Your task to perform on an android device: open app "HBO Max: Stream TV & Movies" (install if not already installed), go to login, and select forgot password Image 0: 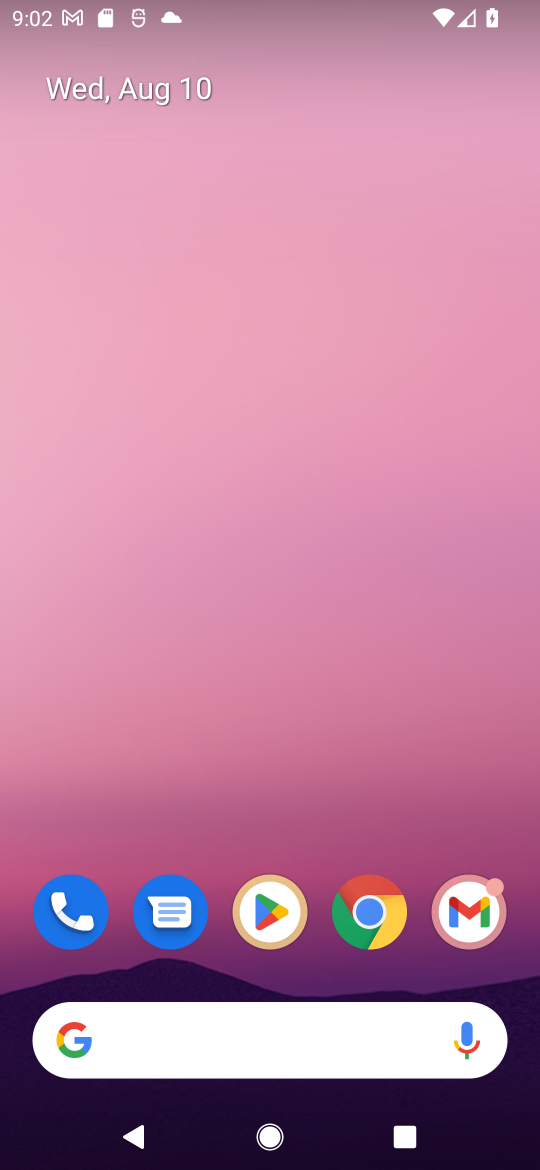
Step 0: drag from (511, 912) to (227, 53)
Your task to perform on an android device: open app "HBO Max: Stream TV & Movies" (install if not already installed), go to login, and select forgot password Image 1: 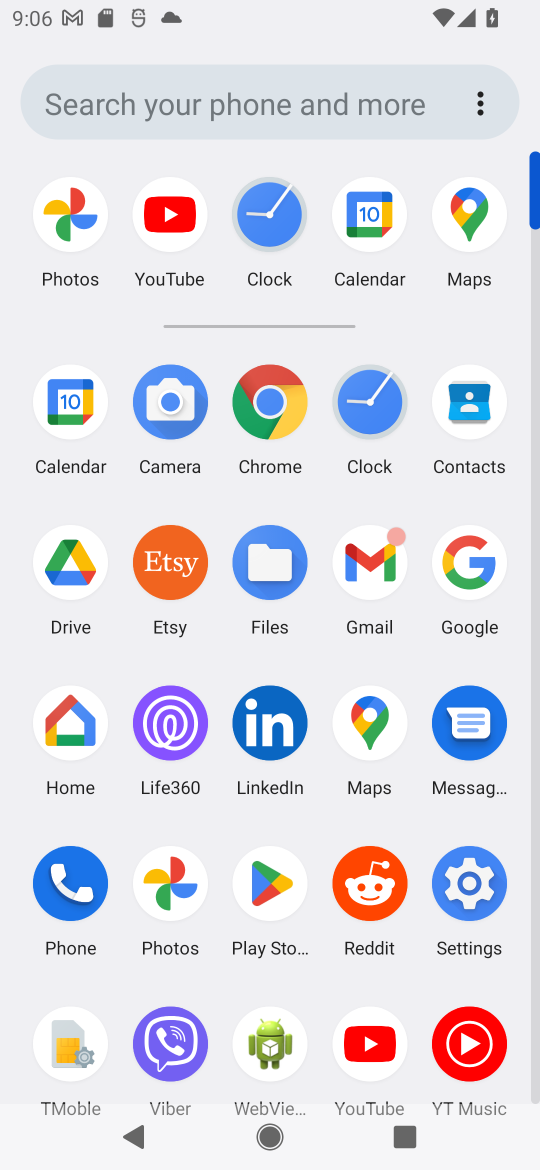
Step 1: click (260, 890)
Your task to perform on an android device: open app "HBO Max: Stream TV & Movies" (install if not already installed), go to login, and select forgot password Image 2: 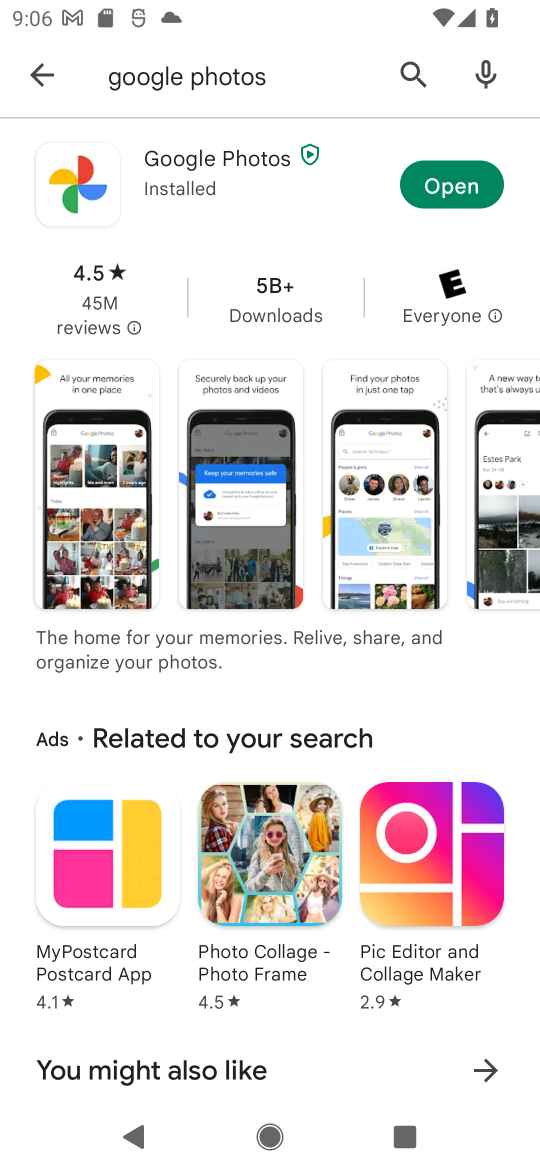
Step 2: press back button
Your task to perform on an android device: open app "HBO Max: Stream TV & Movies" (install if not already installed), go to login, and select forgot password Image 3: 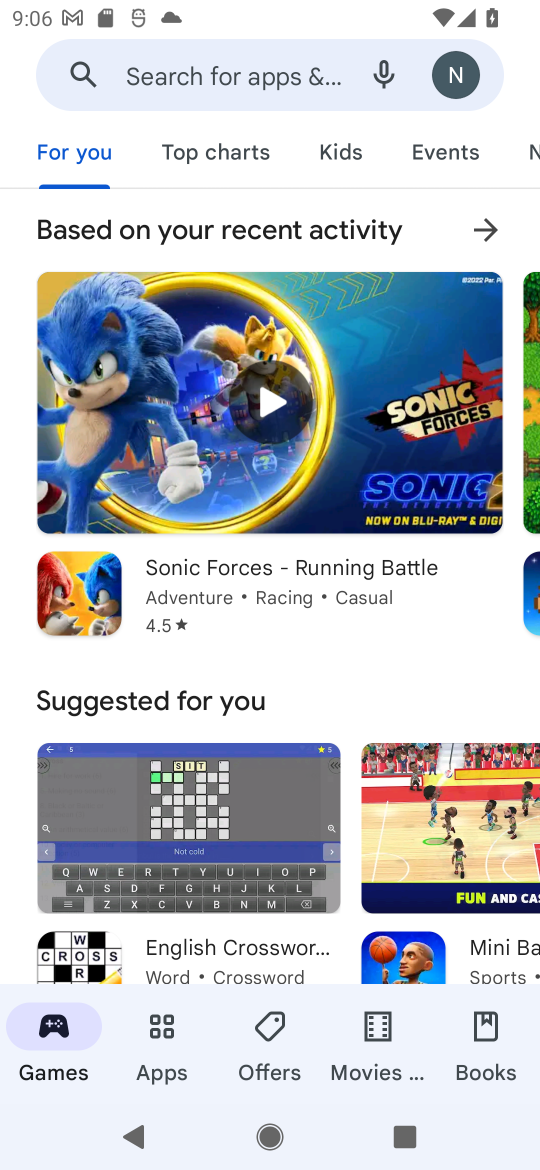
Step 3: click (148, 87)
Your task to perform on an android device: open app "HBO Max: Stream TV & Movies" (install if not already installed), go to login, and select forgot password Image 4: 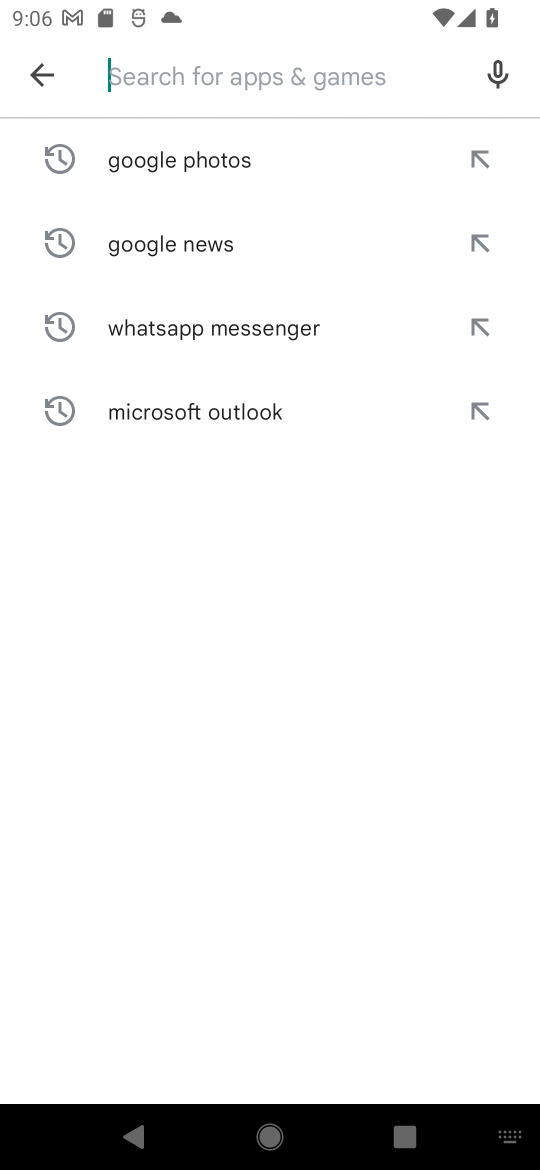
Step 4: type "HBO Max: Stream TV & Movies"
Your task to perform on an android device: open app "HBO Max: Stream TV & Movies" (install if not already installed), go to login, and select forgot password Image 5: 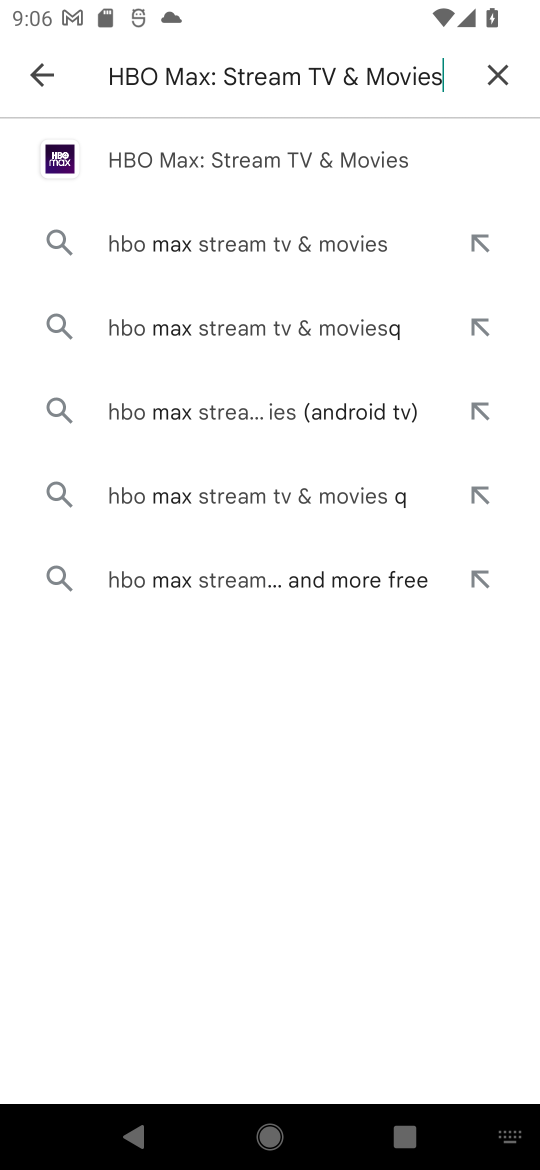
Step 5: click (173, 151)
Your task to perform on an android device: open app "HBO Max: Stream TV & Movies" (install if not already installed), go to login, and select forgot password Image 6: 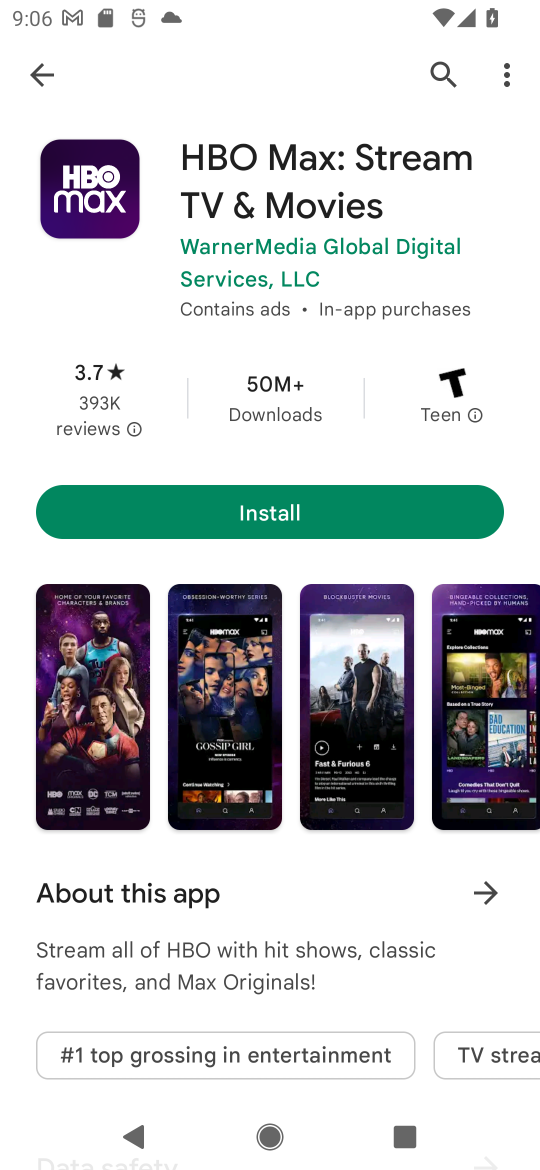
Step 6: task complete